Your task to perform on an android device: turn on showing notifications on the lock screen Image 0: 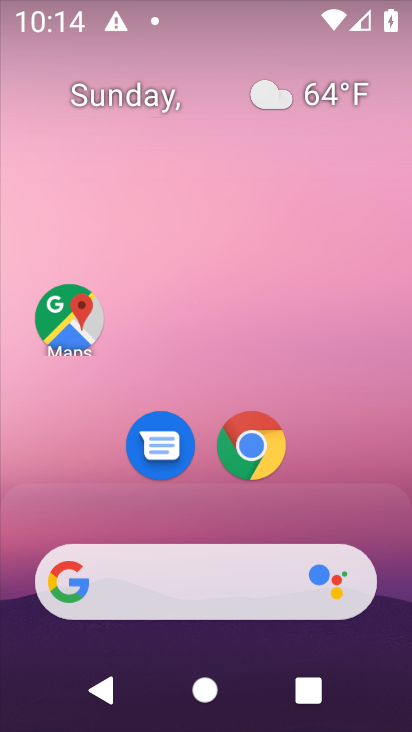
Step 0: drag from (250, 567) to (265, 145)
Your task to perform on an android device: turn on showing notifications on the lock screen Image 1: 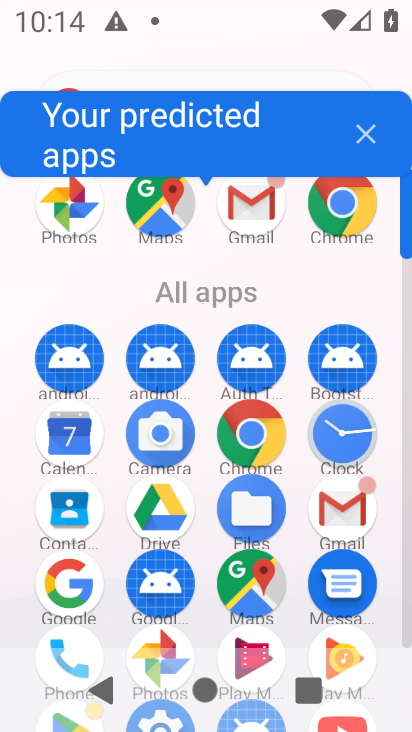
Step 1: drag from (231, 505) to (246, 97)
Your task to perform on an android device: turn on showing notifications on the lock screen Image 2: 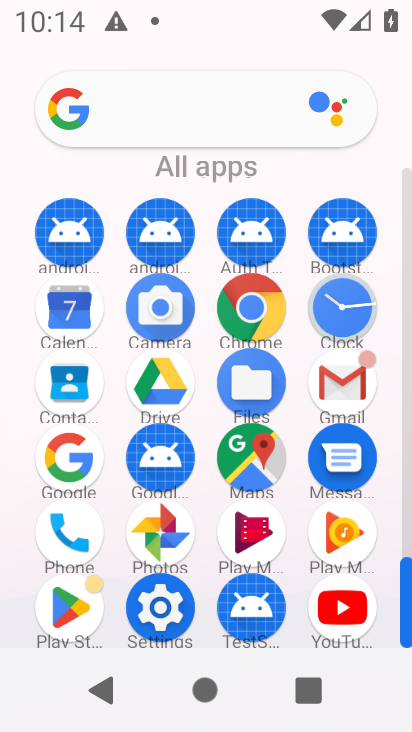
Step 2: click (161, 594)
Your task to perform on an android device: turn on showing notifications on the lock screen Image 3: 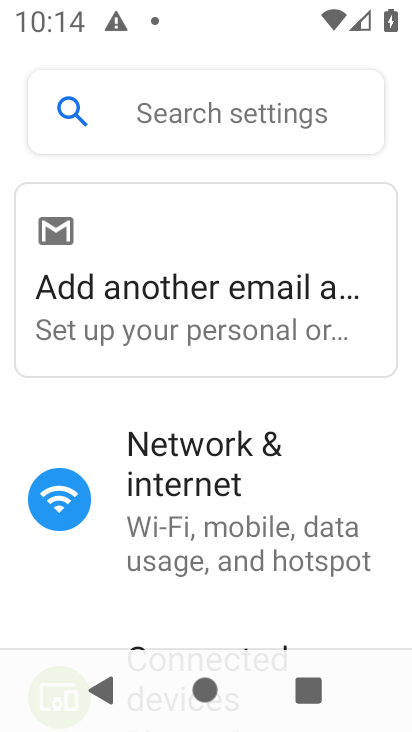
Step 3: drag from (241, 449) to (268, 186)
Your task to perform on an android device: turn on showing notifications on the lock screen Image 4: 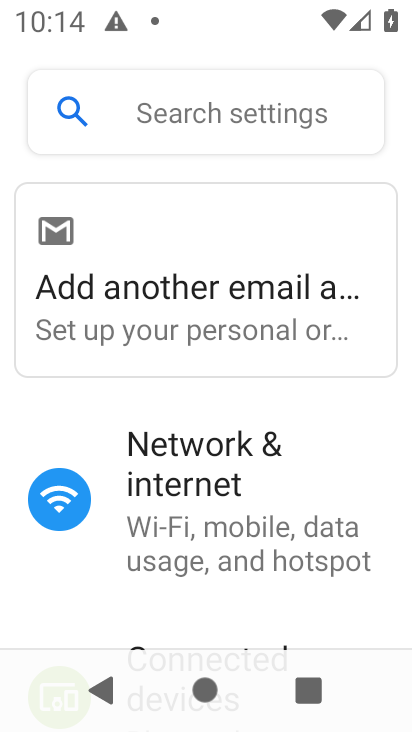
Step 4: drag from (242, 597) to (224, 243)
Your task to perform on an android device: turn on showing notifications on the lock screen Image 5: 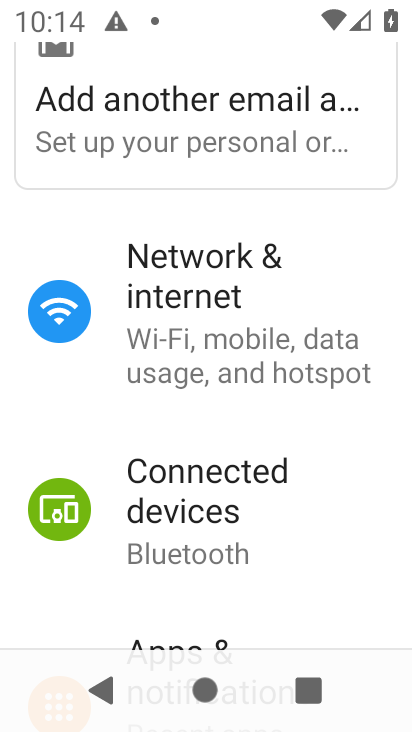
Step 5: drag from (163, 628) to (158, 281)
Your task to perform on an android device: turn on showing notifications on the lock screen Image 6: 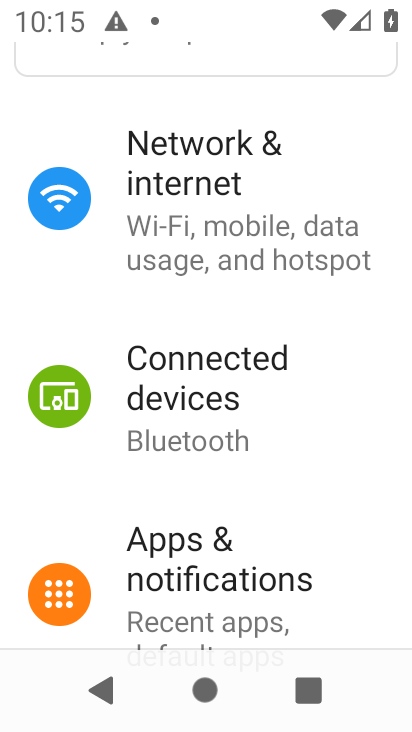
Step 6: click (220, 559)
Your task to perform on an android device: turn on showing notifications on the lock screen Image 7: 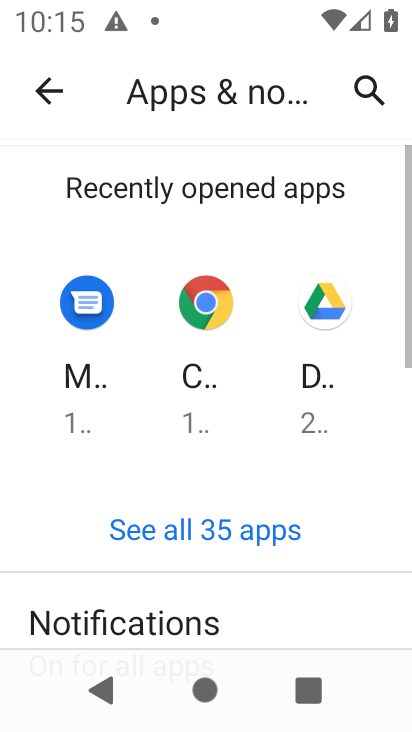
Step 7: click (202, 599)
Your task to perform on an android device: turn on showing notifications on the lock screen Image 8: 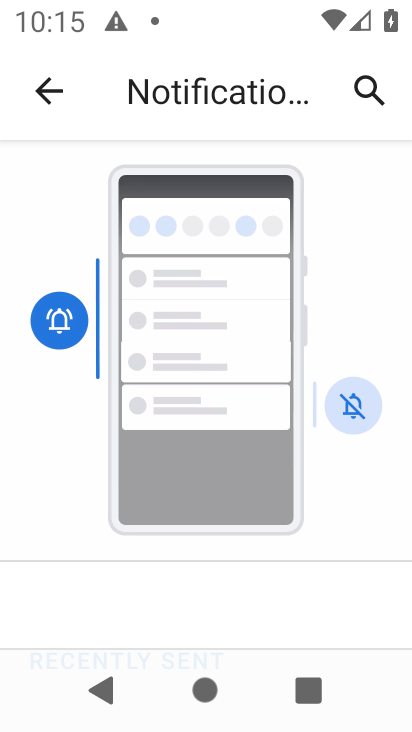
Step 8: drag from (288, 614) to (307, 260)
Your task to perform on an android device: turn on showing notifications on the lock screen Image 9: 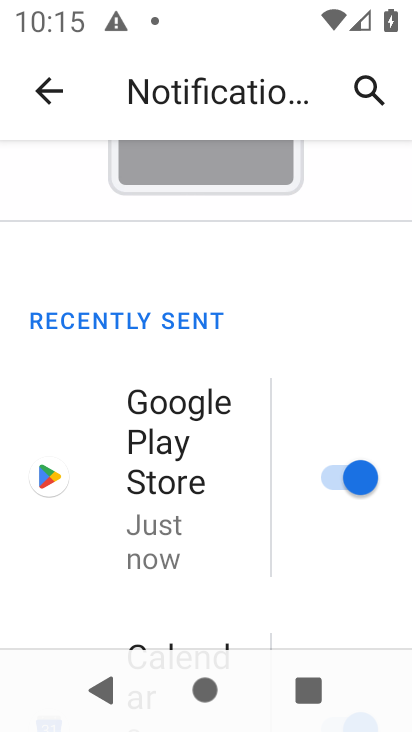
Step 9: drag from (204, 540) to (205, 36)
Your task to perform on an android device: turn on showing notifications on the lock screen Image 10: 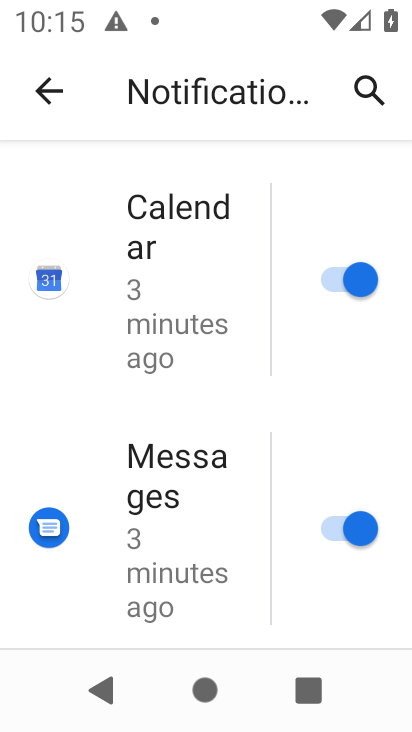
Step 10: drag from (171, 587) to (170, 68)
Your task to perform on an android device: turn on showing notifications on the lock screen Image 11: 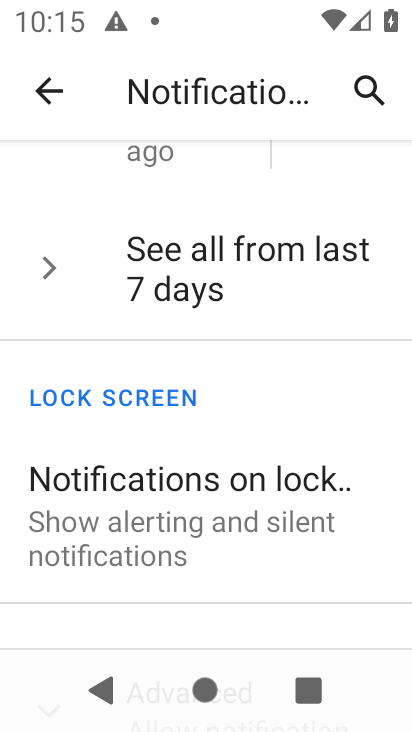
Step 11: click (182, 519)
Your task to perform on an android device: turn on showing notifications on the lock screen Image 12: 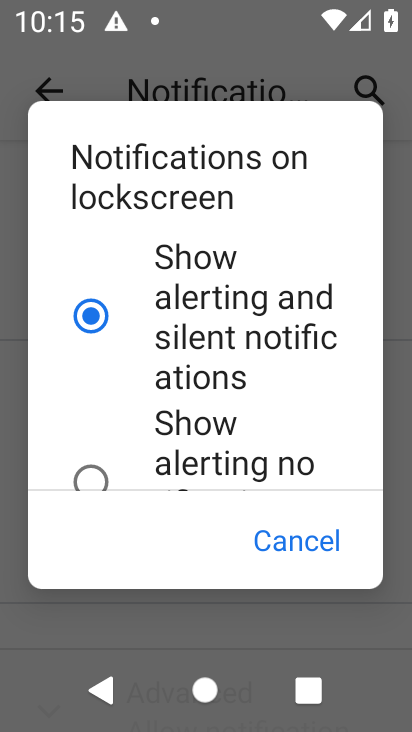
Step 12: click (212, 347)
Your task to perform on an android device: turn on showing notifications on the lock screen Image 13: 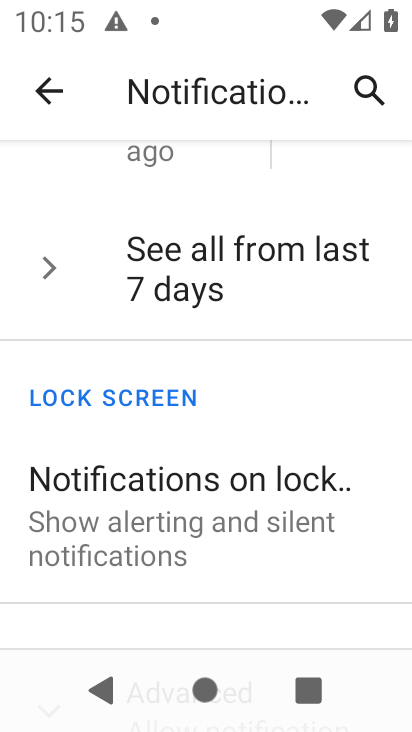
Step 13: task complete